Your task to perform on an android device: open wifi settings Image 0: 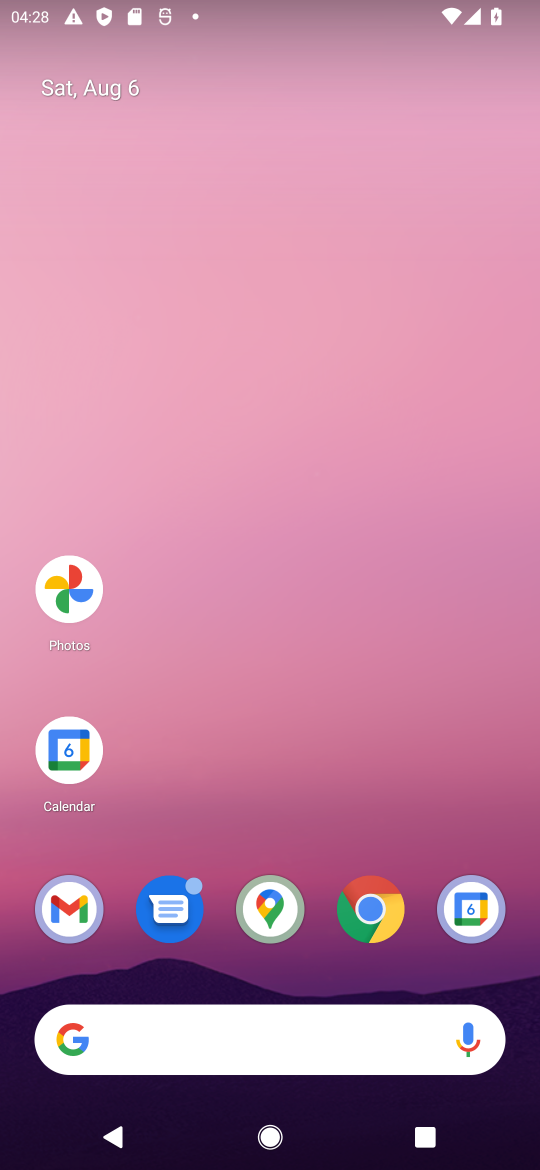
Step 0: drag from (284, 760) to (234, 98)
Your task to perform on an android device: open wifi settings Image 1: 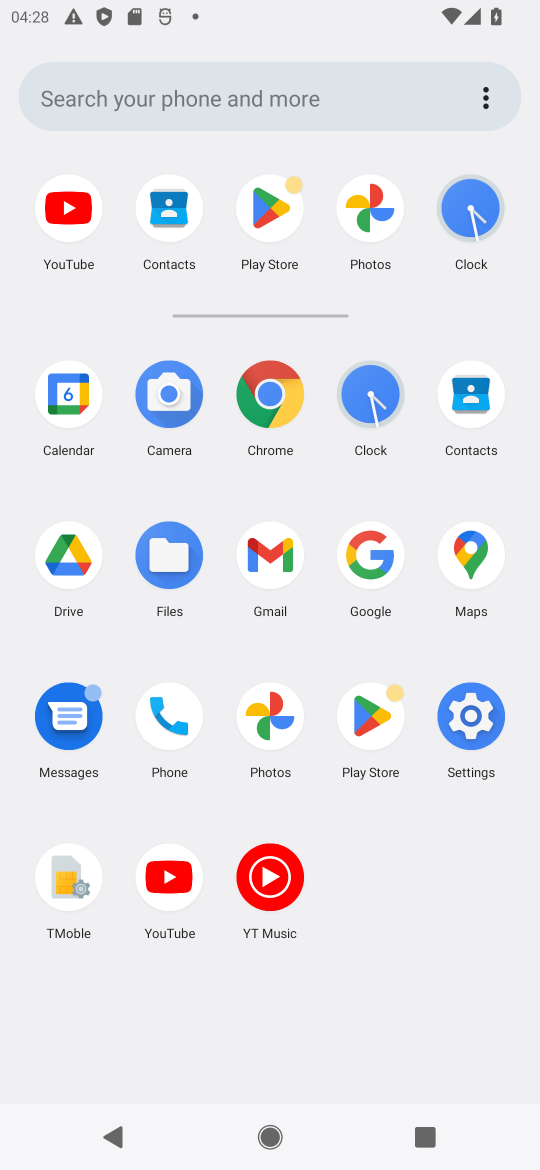
Step 1: click (475, 713)
Your task to perform on an android device: open wifi settings Image 2: 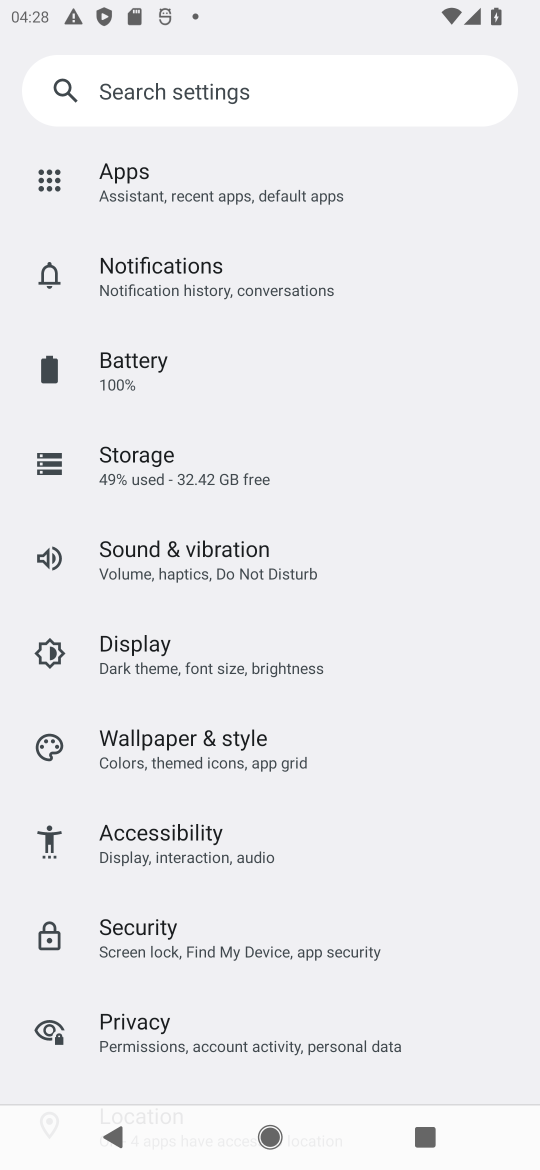
Step 2: drag from (362, 339) to (305, 714)
Your task to perform on an android device: open wifi settings Image 3: 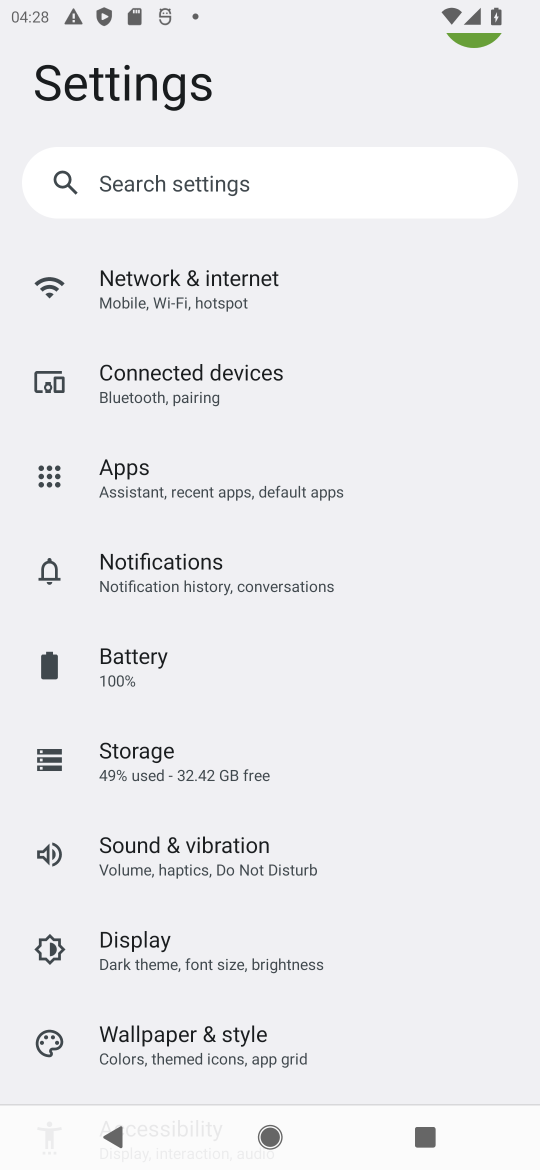
Step 3: click (204, 275)
Your task to perform on an android device: open wifi settings Image 4: 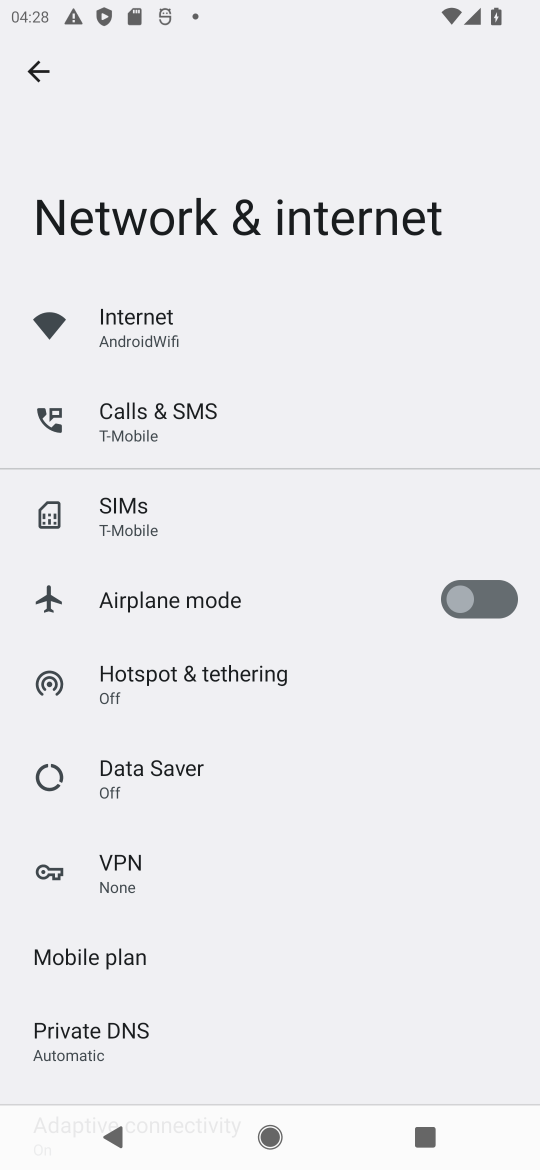
Step 4: click (142, 316)
Your task to perform on an android device: open wifi settings Image 5: 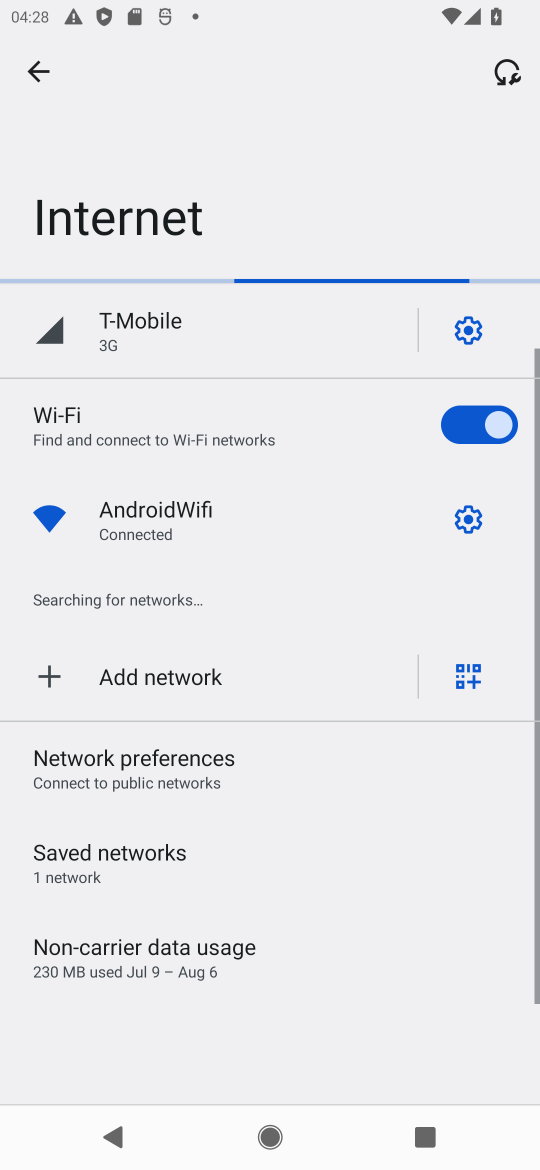
Step 5: task complete